Your task to perform on an android device: toggle translation in the chrome app Image 0: 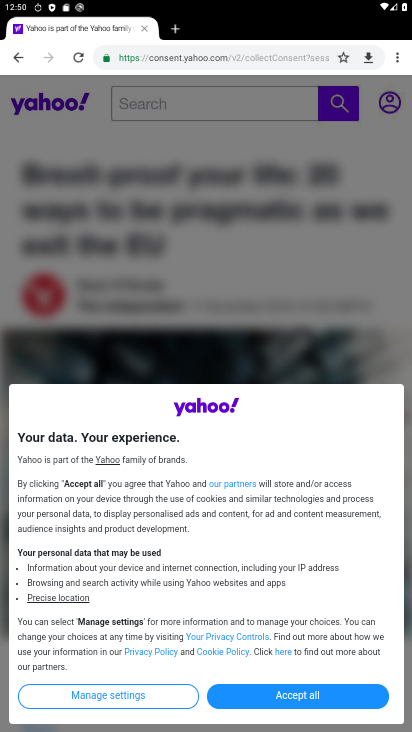
Step 0: drag from (398, 53) to (296, 385)
Your task to perform on an android device: toggle translation in the chrome app Image 1: 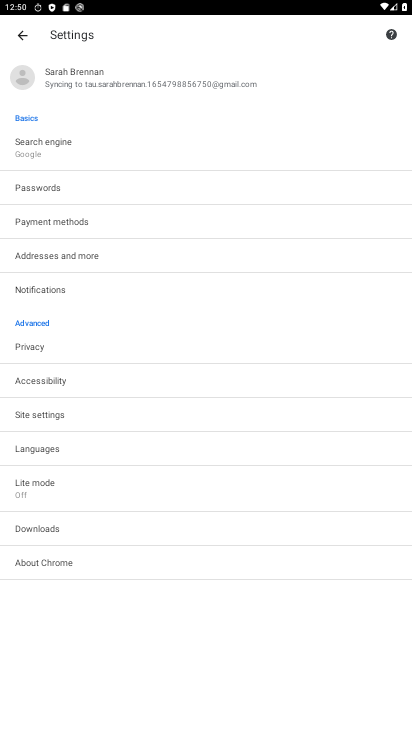
Step 1: click (72, 447)
Your task to perform on an android device: toggle translation in the chrome app Image 2: 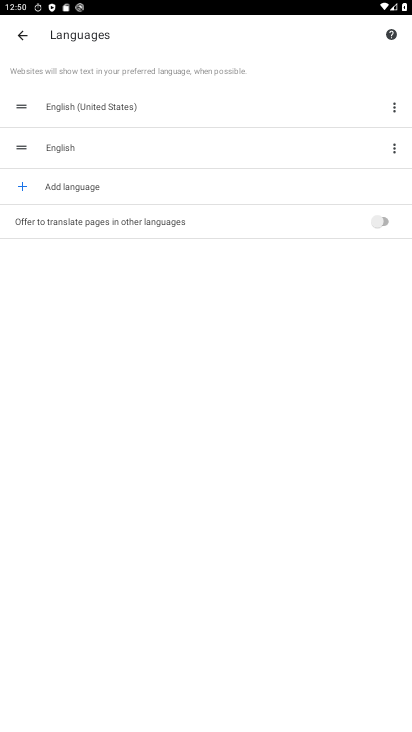
Step 2: click (381, 224)
Your task to perform on an android device: toggle translation in the chrome app Image 3: 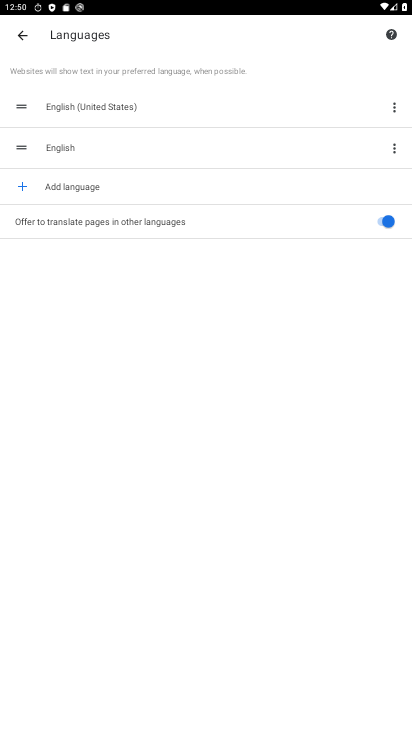
Step 3: task complete